Your task to perform on an android device: Open network settings Image 0: 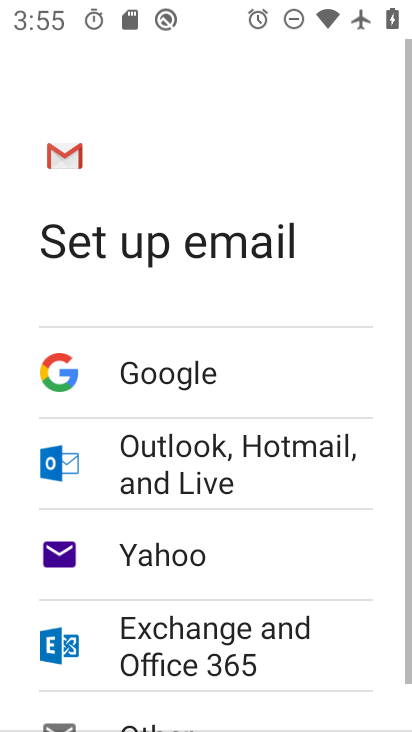
Step 0: press home button
Your task to perform on an android device: Open network settings Image 1: 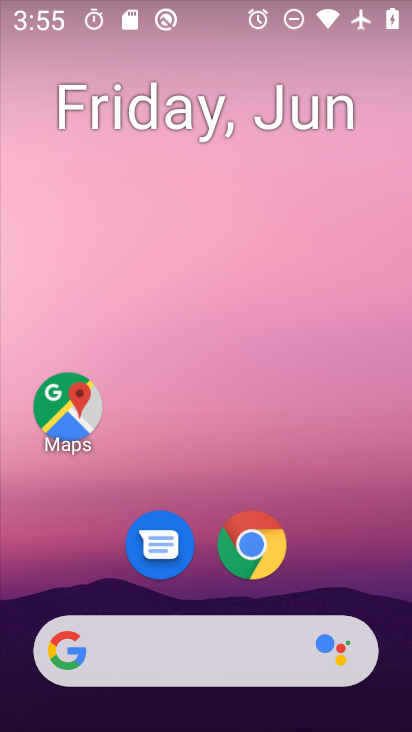
Step 1: drag from (338, 558) to (275, 0)
Your task to perform on an android device: Open network settings Image 2: 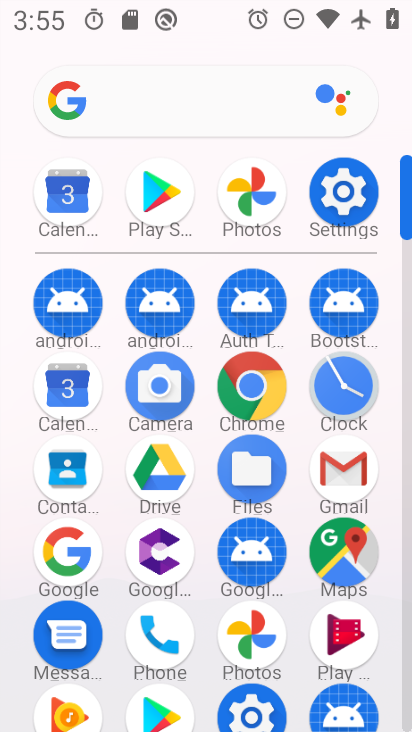
Step 2: click (332, 199)
Your task to perform on an android device: Open network settings Image 3: 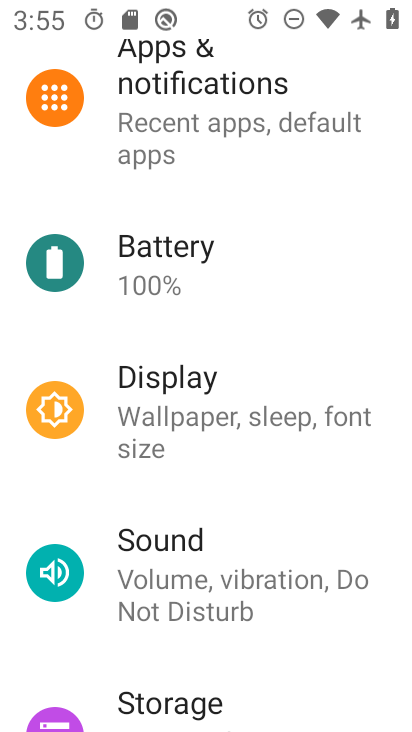
Step 3: drag from (194, 189) to (253, 716)
Your task to perform on an android device: Open network settings Image 4: 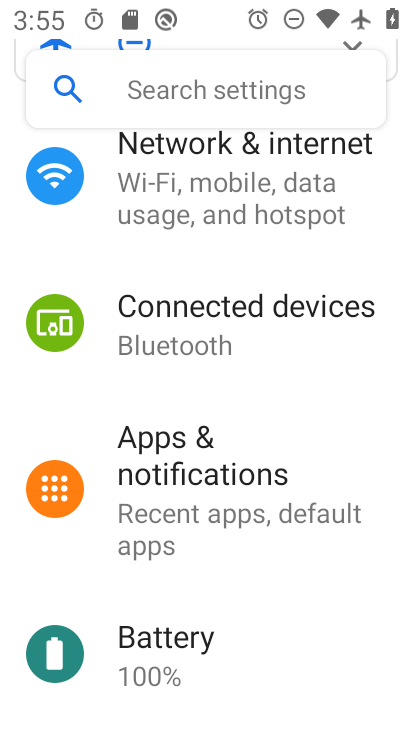
Step 4: click (194, 196)
Your task to perform on an android device: Open network settings Image 5: 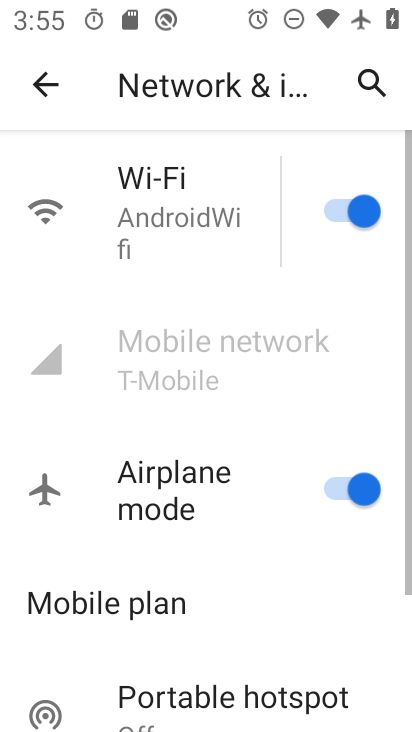
Step 5: task complete